Your task to perform on an android device: Go to sound settings Image 0: 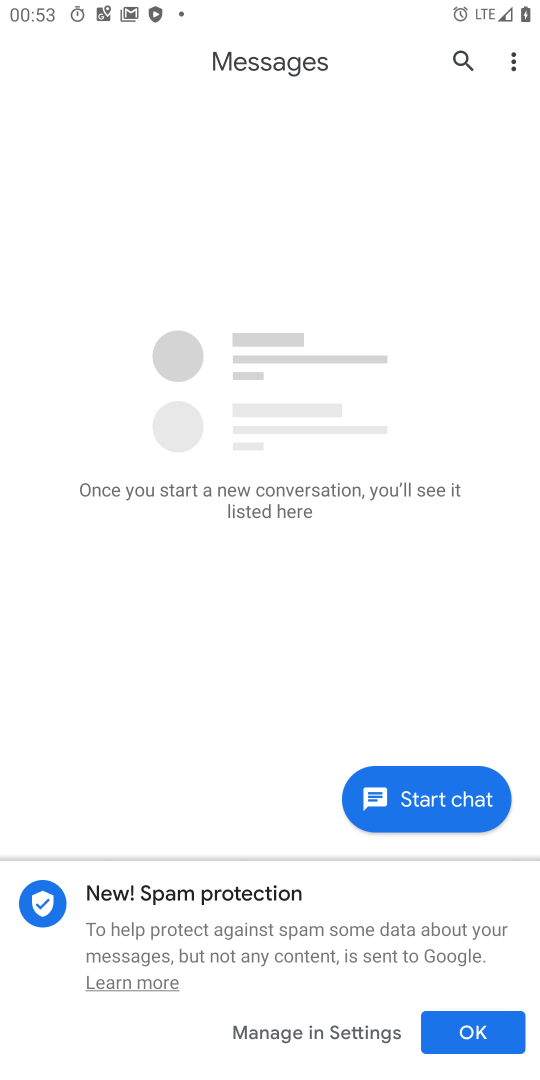
Step 0: press home button
Your task to perform on an android device: Go to sound settings Image 1: 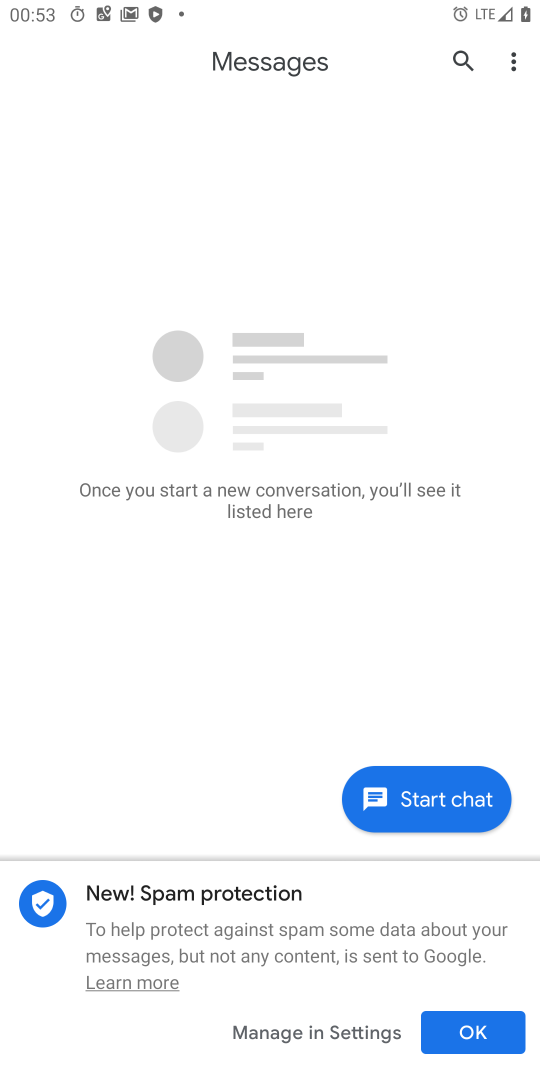
Step 1: press home button
Your task to perform on an android device: Go to sound settings Image 2: 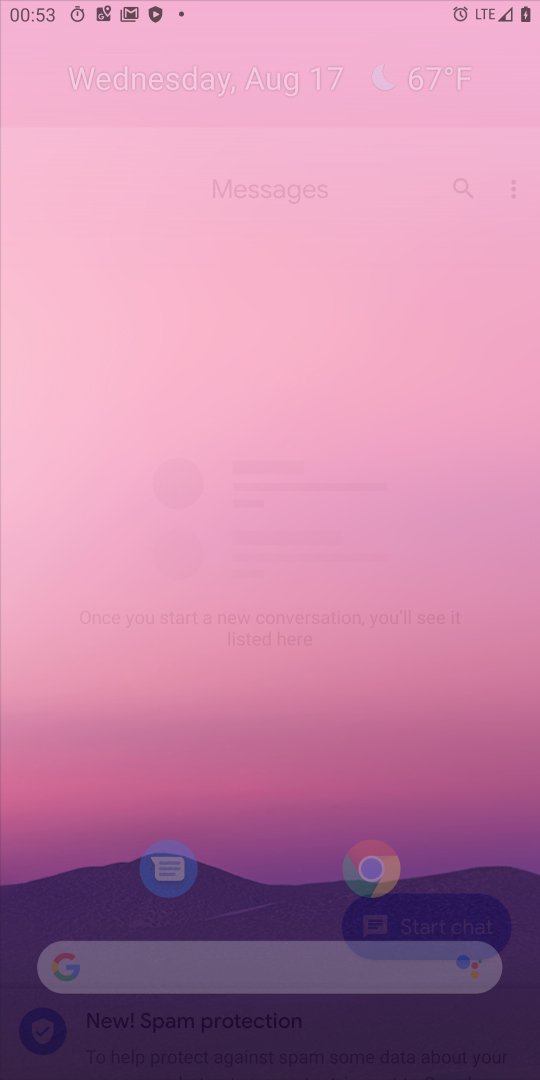
Step 2: drag from (229, 856) to (279, 21)
Your task to perform on an android device: Go to sound settings Image 3: 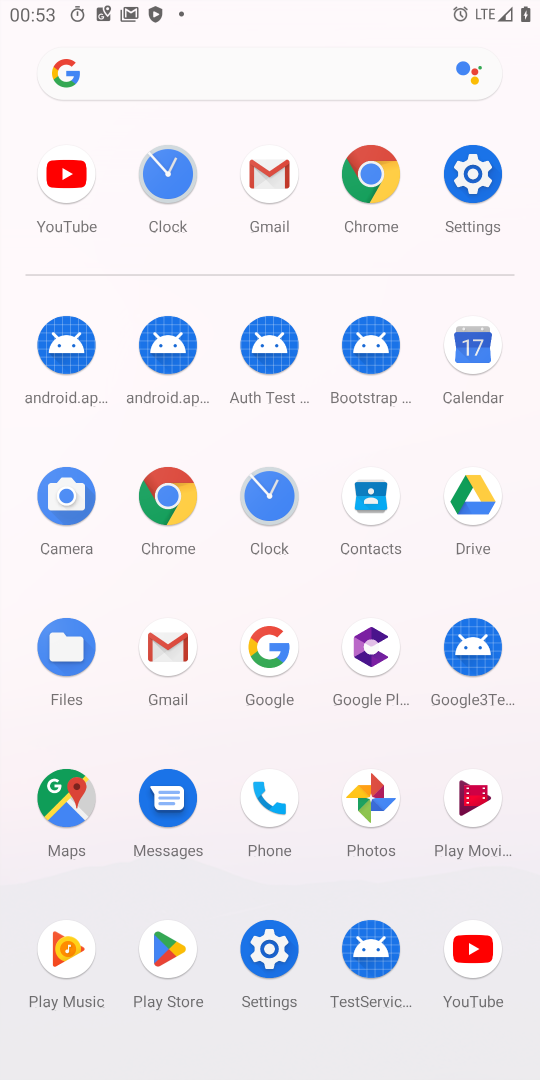
Step 3: click (259, 947)
Your task to perform on an android device: Go to sound settings Image 4: 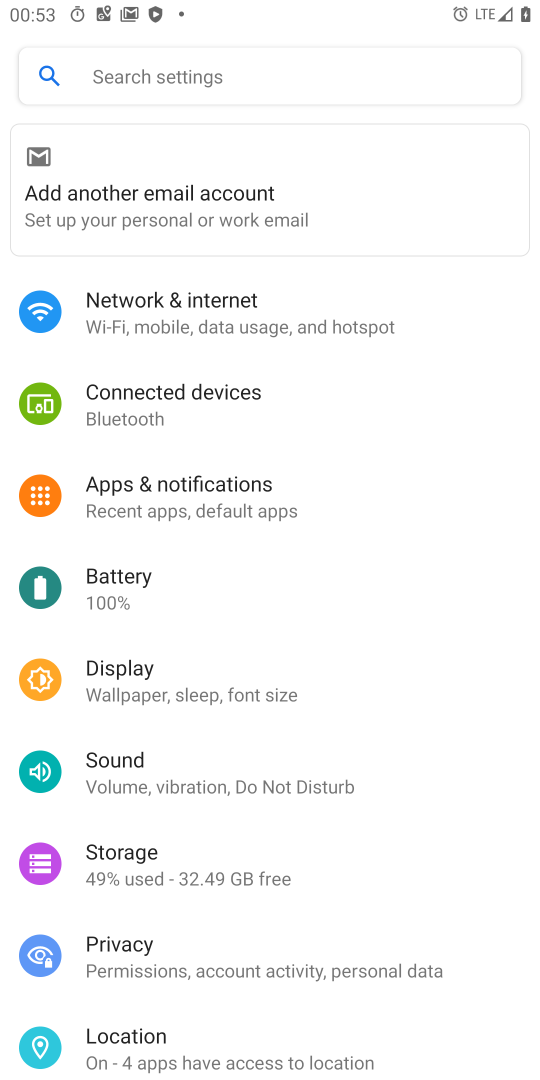
Step 4: click (199, 767)
Your task to perform on an android device: Go to sound settings Image 5: 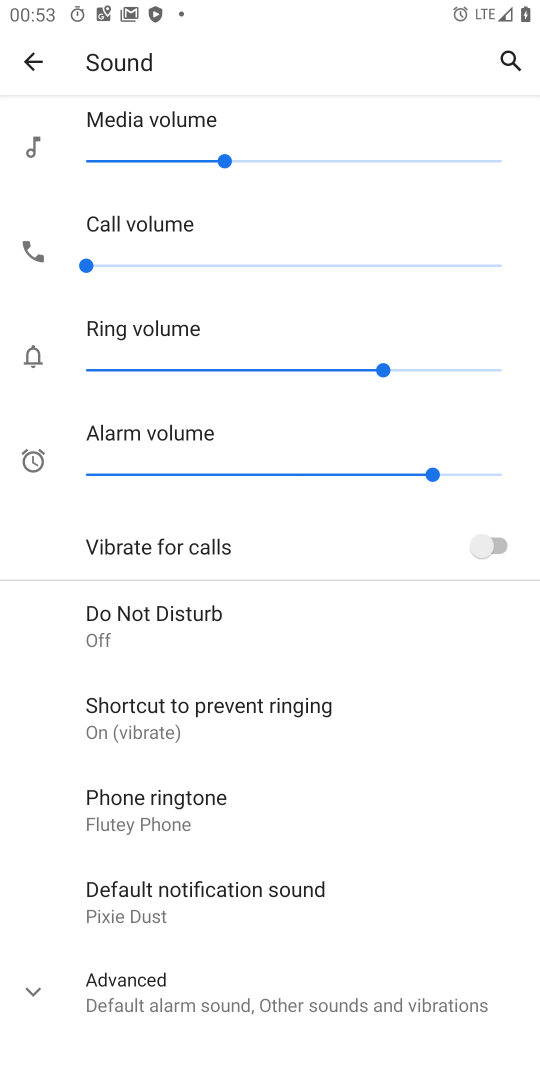
Step 5: task complete